Your task to perform on an android device: install app "Adobe Express: Graphic Design" Image 0: 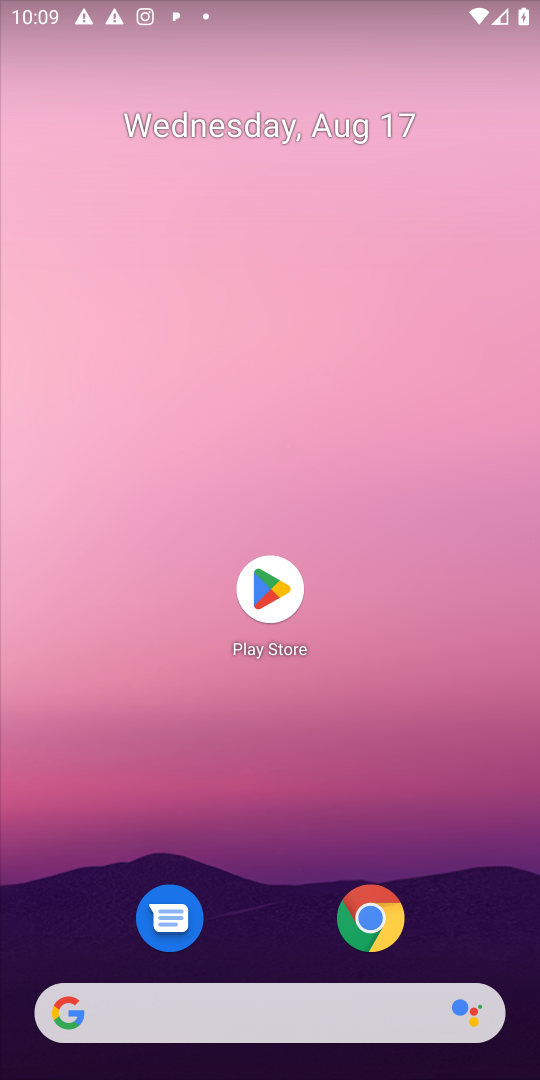
Step 0: click (260, 605)
Your task to perform on an android device: install app "Adobe Express: Graphic Design" Image 1: 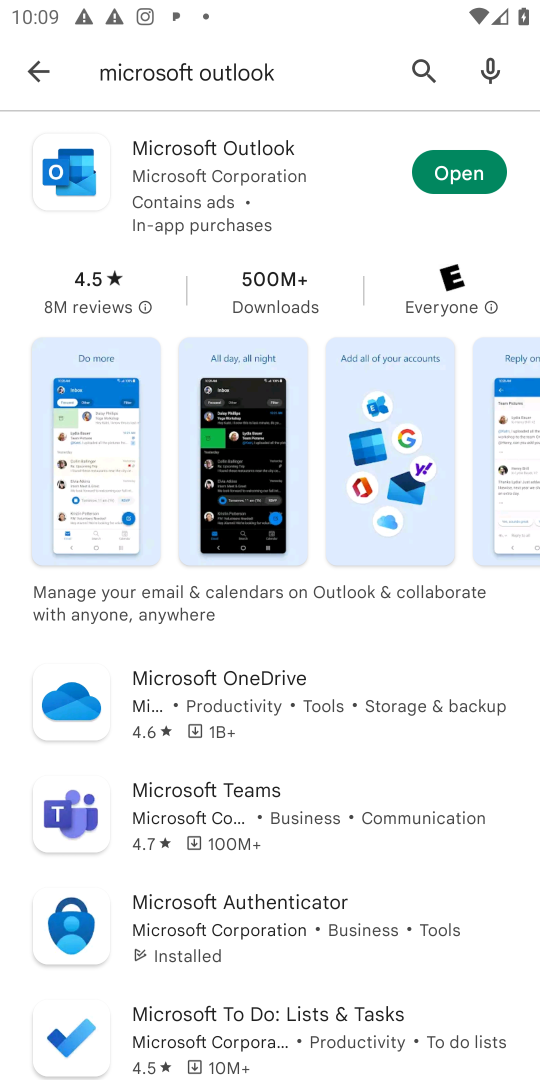
Step 1: click (423, 76)
Your task to perform on an android device: install app "Adobe Express: Graphic Design" Image 2: 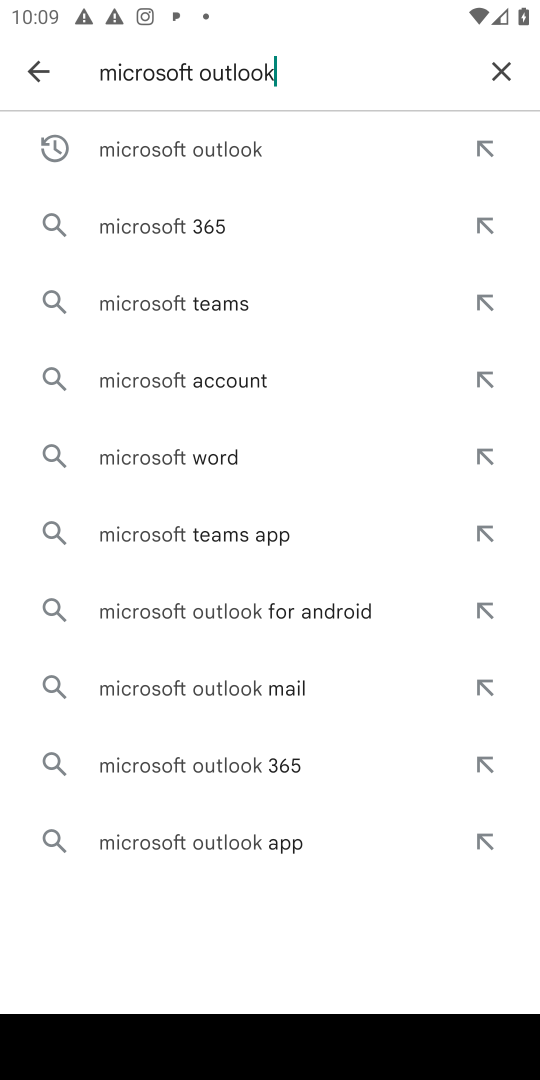
Step 2: click (504, 61)
Your task to perform on an android device: install app "Adobe Express: Graphic Design" Image 3: 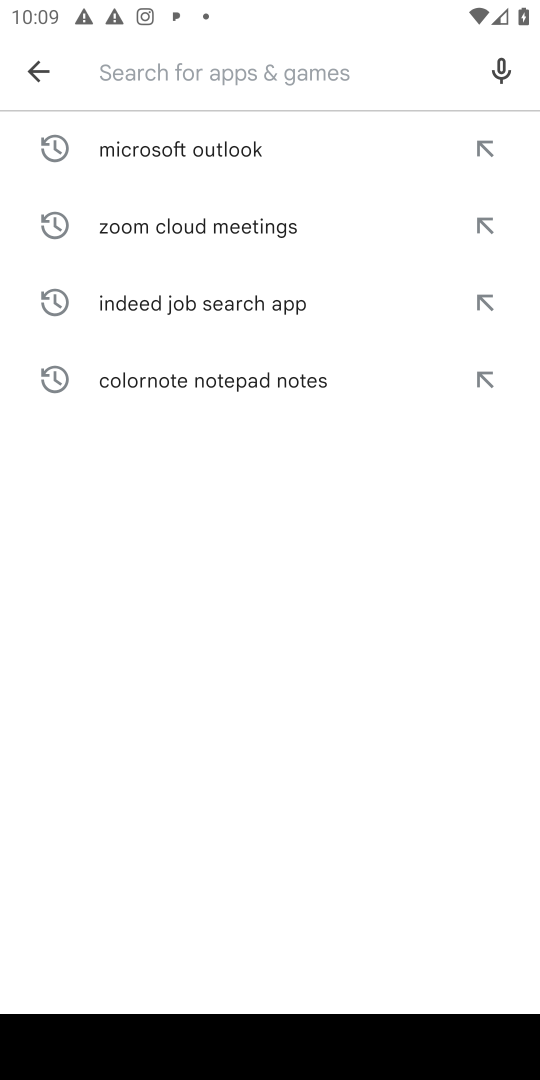
Step 3: type "Adobe Express: Graphic Design"
Your task to perform on an android device: install app "Adobe Express: Graphic Design" Image 4: 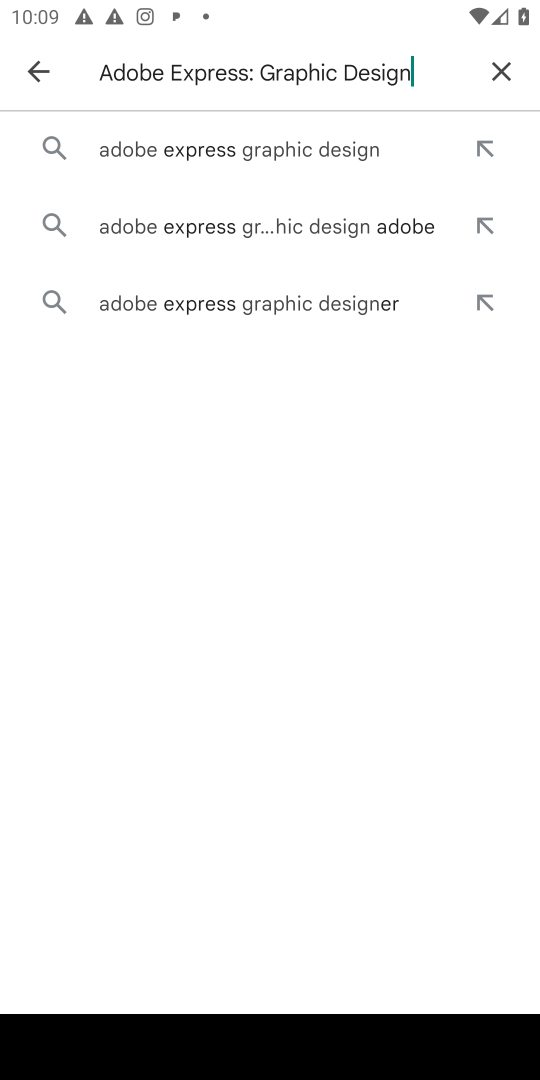
Step 4: click (328, 145)
Your task to perform on an android device: install app "Adobe Express: Graphic Design" Image 5: 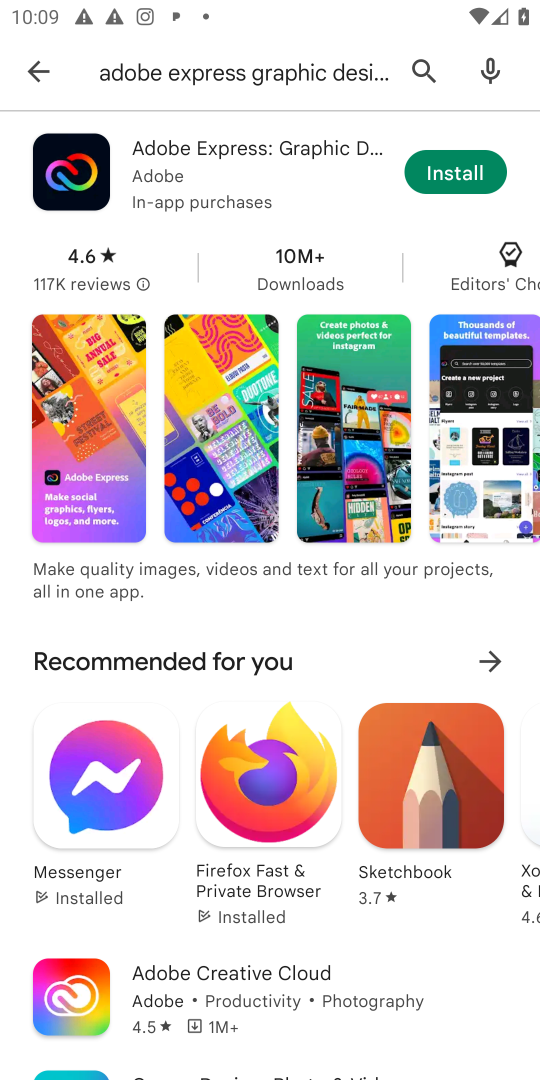
Step 5: click (454, 180)
Your task to perform on an android device: install app "Adobe Express: Graphic Design" Image 6: 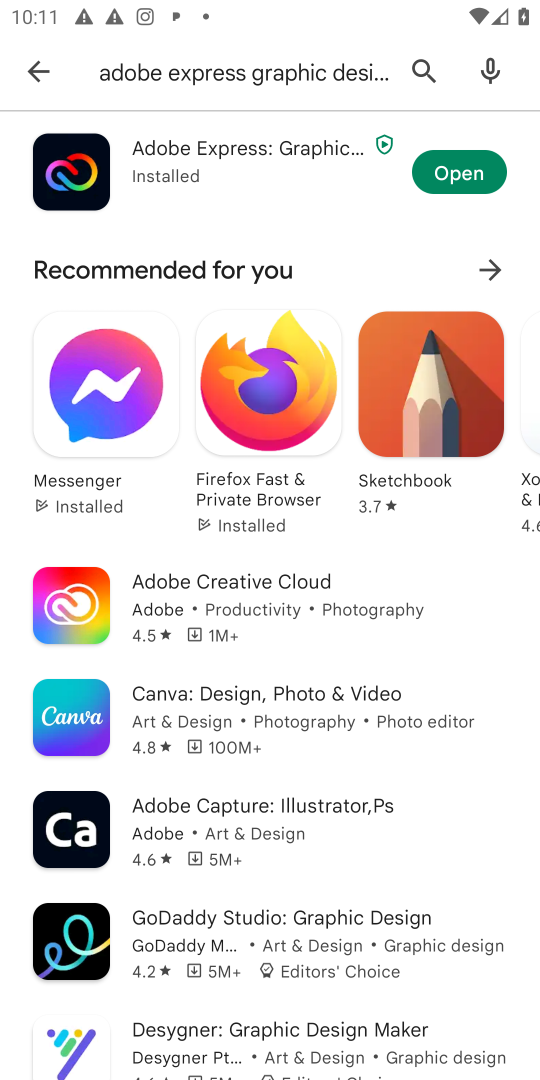
Step 6: task complete